Your task to perform on an android device: see creations saved in the google photos Image 0: 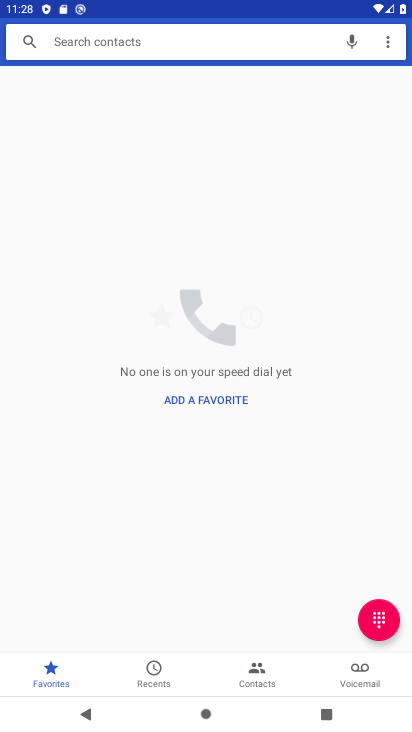
Step 0: press home button
Your task to perform on an android device: see creations saved in the google photos Image 1: 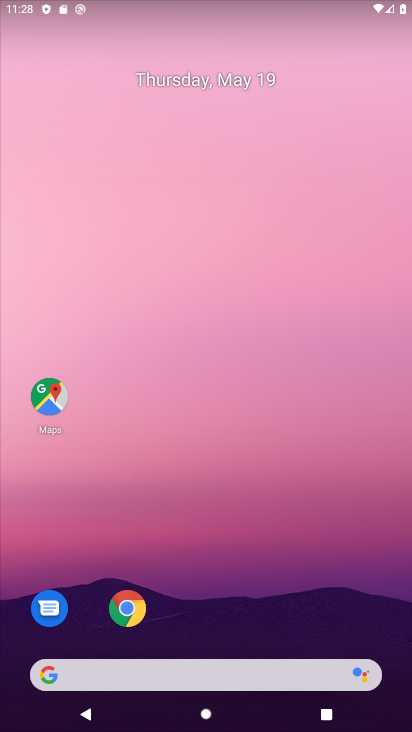
Step 1: drag from (377, 615) to (347, 195)
Your task to perform on an android device: see creations saved in the google photos Image 2: 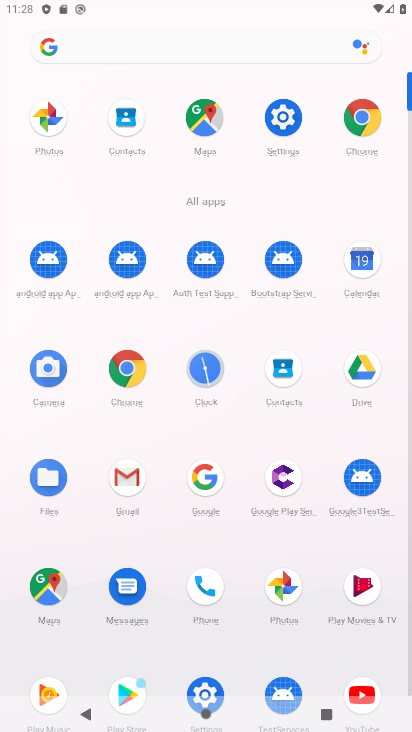
Step 2: click (290, 598)
Your task to perform on an android device: see creations saved in the google photos Image 3: 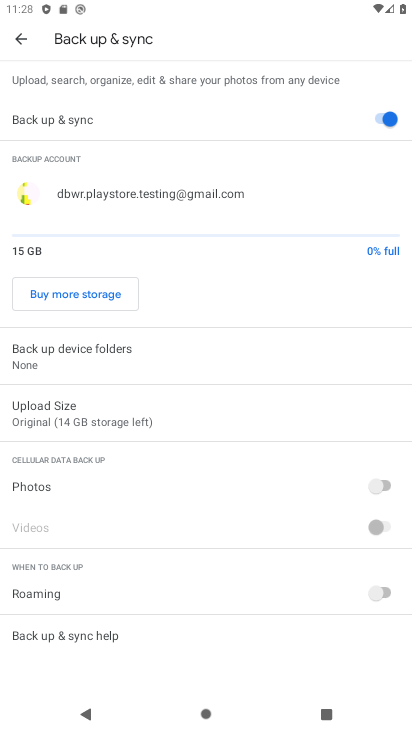
Step 3: click (18, 36)
Your task to perform on an android device: see creations saved in the google photos Image 4: 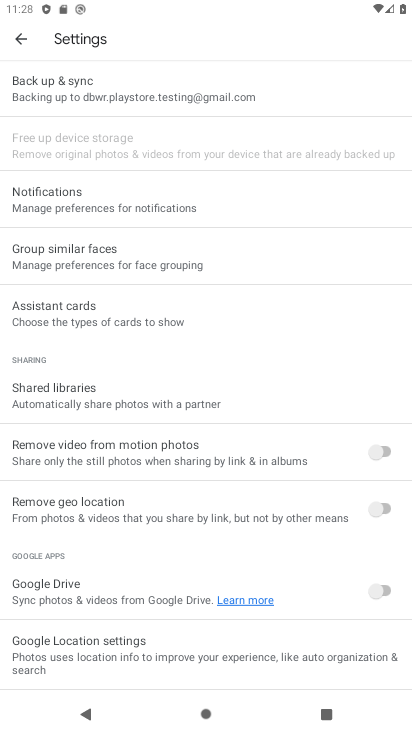
Step 4: click (30, 37)
Your task to perform on an android device: see creations saved in the google photos Image 5: 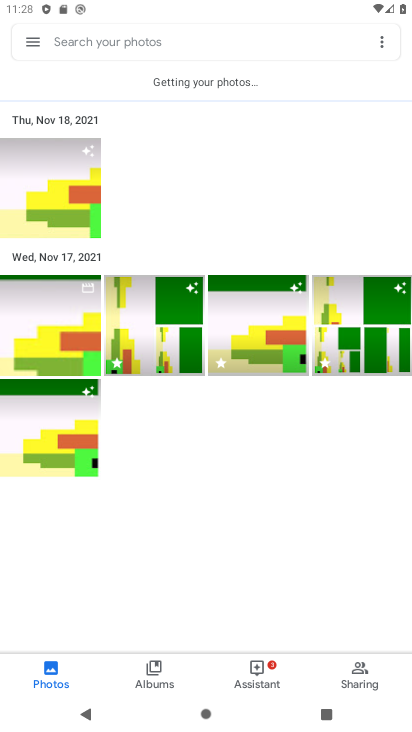
Step 5: click (228, 77)
Your task to perform on an android device: see creations saved in the google photos Image 6: 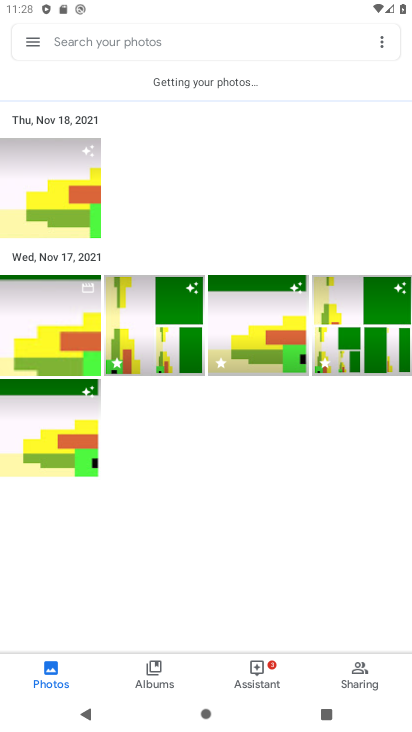
Step 6: click (150, 29)
Your task to perform on an android device: see creations saved in the google photos Image 7: 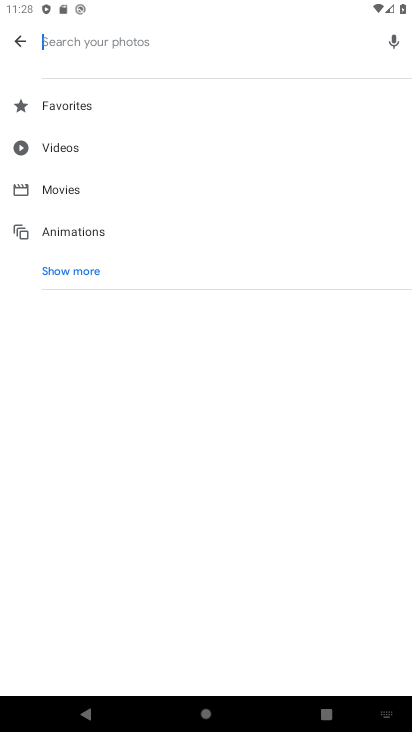
Step 7: click (76, 270)
Your task to perform on an android device: see creations saved in the google photos Image 8: 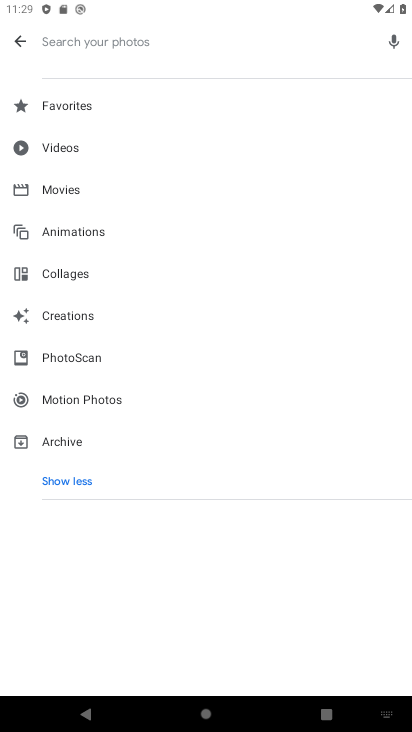
Step 8: click (111, 315)
Your task to perform on an android device: see creations saved in the google photos Image 9: 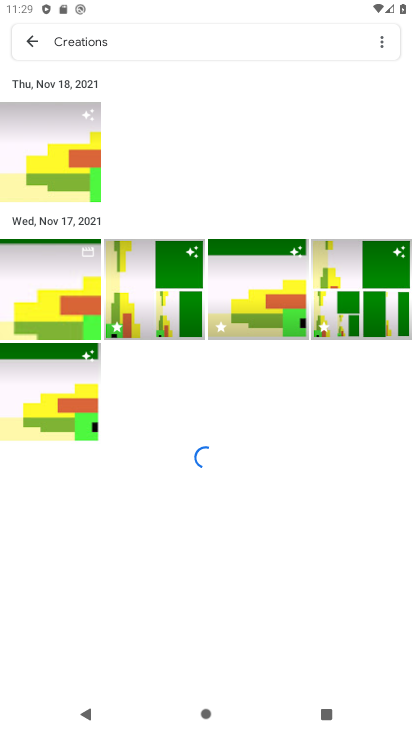
Step 9: task complete